Your task to perform on an android device: snooze an email in the gmail app Image 0: 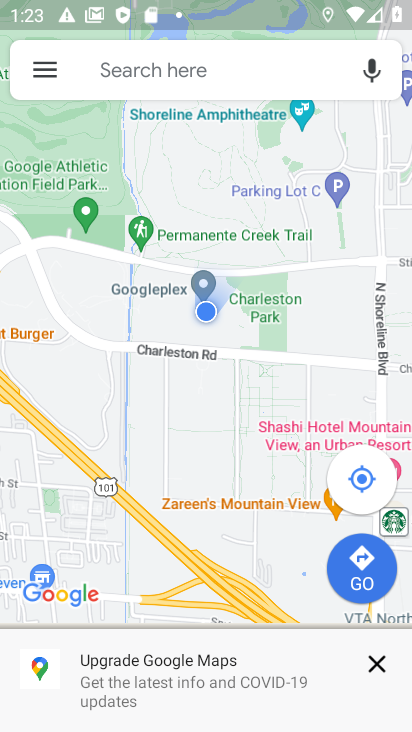
Step 0: press home button
Your task to perform on an android device: snooze an email in the gmail app Image 1: 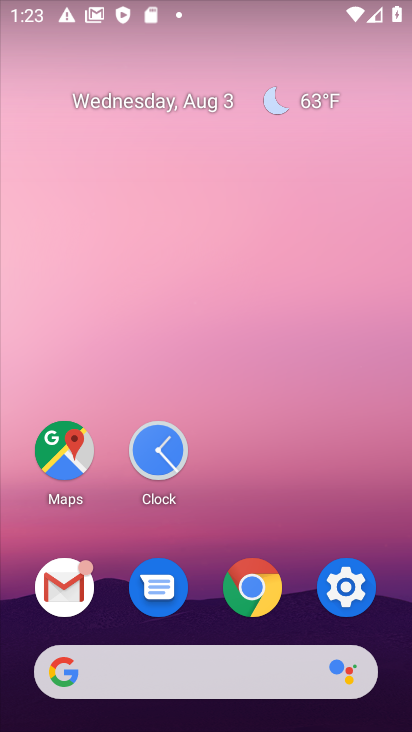
Step 1: click (50, 588)
Your task to perform on an android device: snooze an email in the gmail app Image 2: 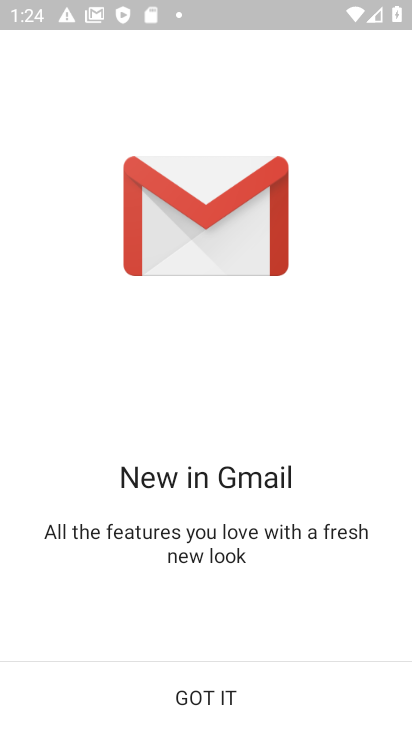
Step 2: click (220, 706)
Your task to perform on an android device: snooze an email in the gmail app Image 3: 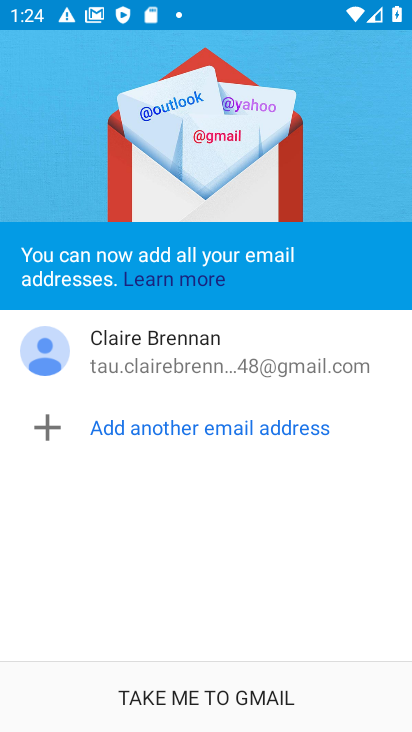
Step 3: click (208, 695)
Your task to perform on an android device: snooze an email in the gmail app Image 4: 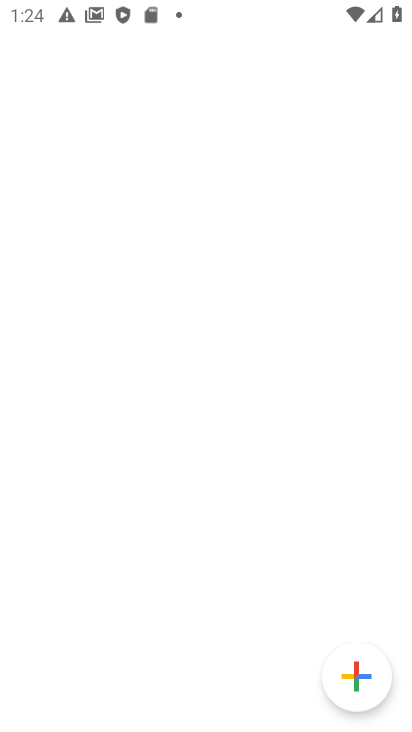
Step 4: click (237, 689)
Your task to perform on an android device: snooze an email in the gmail app Image 5: 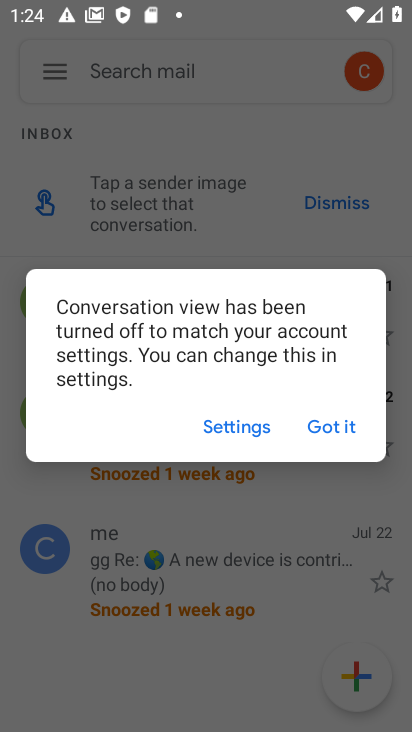
Step 5: click (337, 423)
Your task to perform on an android device: snooze an email in the gmail app Image 6: 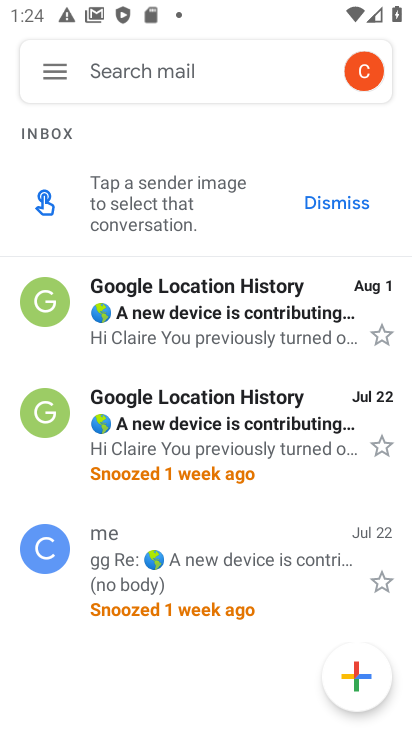
Step 6: click (243, 308)
Your task to perform on an android device: snooze an email in the gmail app Image 7: 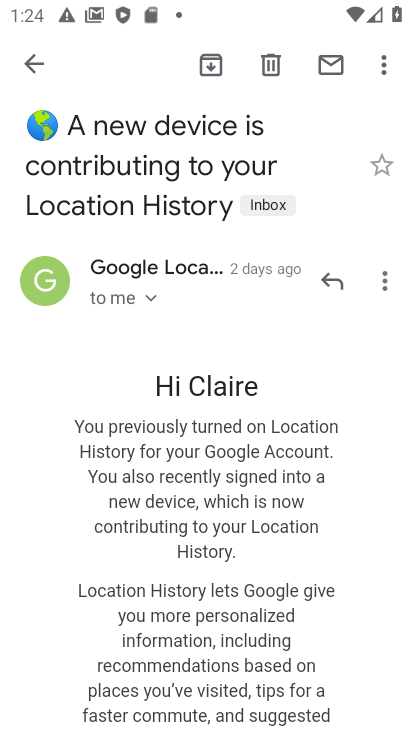
Step 7: click (385, 72)
Your task to perform on an android device: snooze an email in the gmail app Image 8: 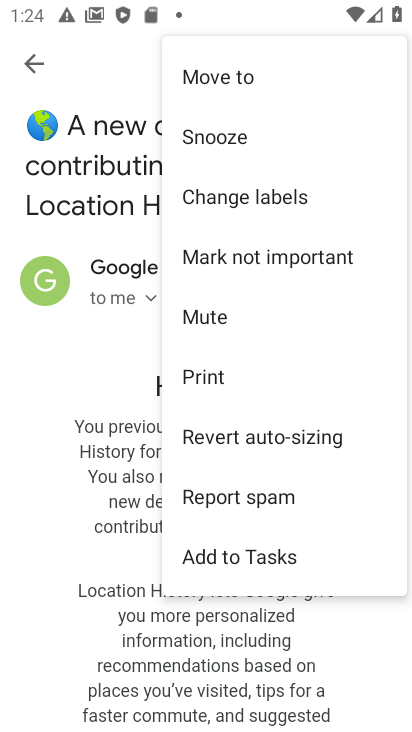
Step 8: click (217, 144)
Your task to perform on an android device: snooze an email in the gmail app Image 9: 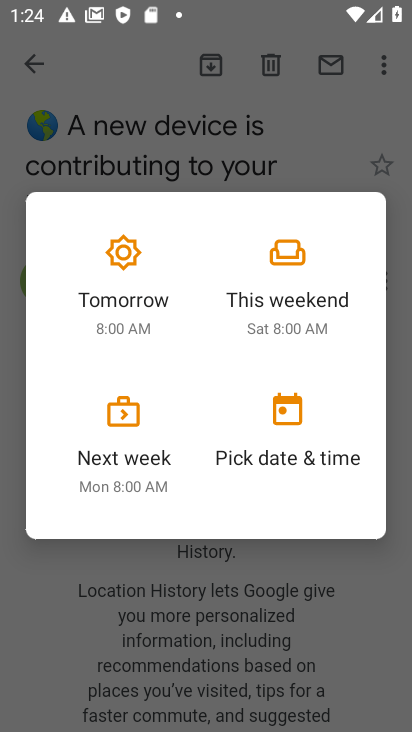
Step 9: click (118, 285)
Your task to perform on an android device: snooze an email in the gmail app Image 10: 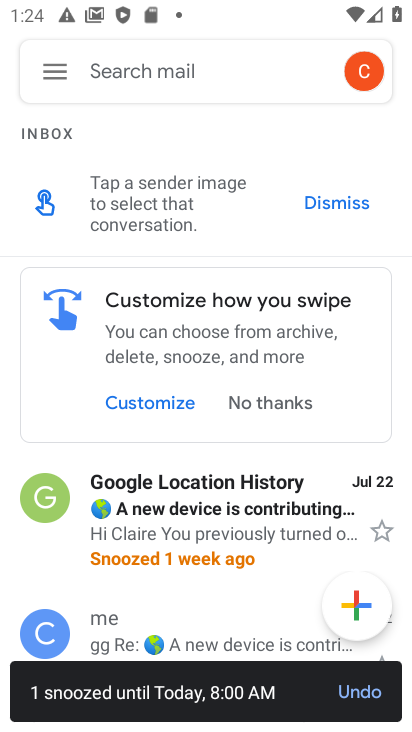
Step 10: task complete